Your task to perform on an android device: set the timer Image 0: 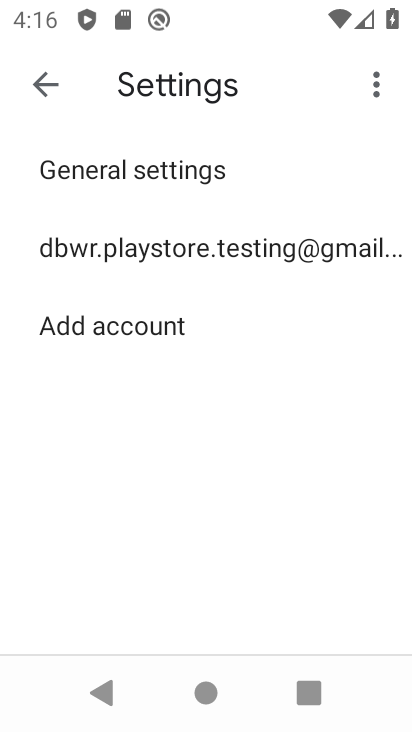
Step 0: press home button
Your task to perform on an android device: set the timer Image 1: 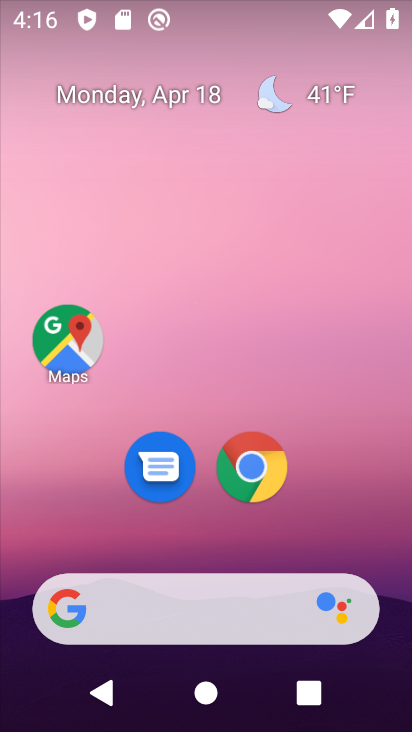
Step 1: drag from (218, 547) to (231, 209)
Your task to perform on an android device: set the timer Image 2: 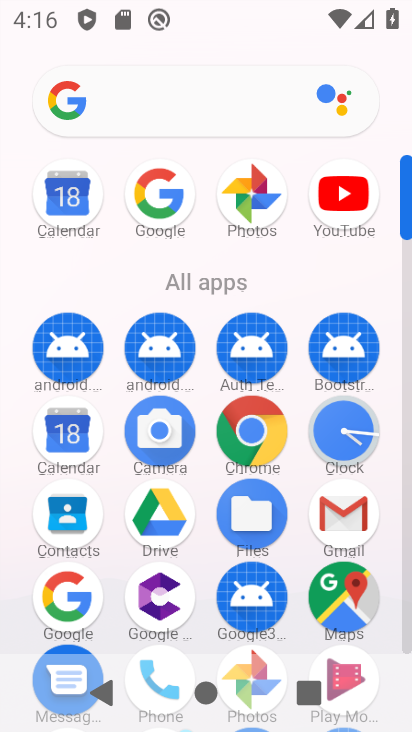
Step 2: click (327, 440)
Your task to perform on an android device: set the timer Image 3: 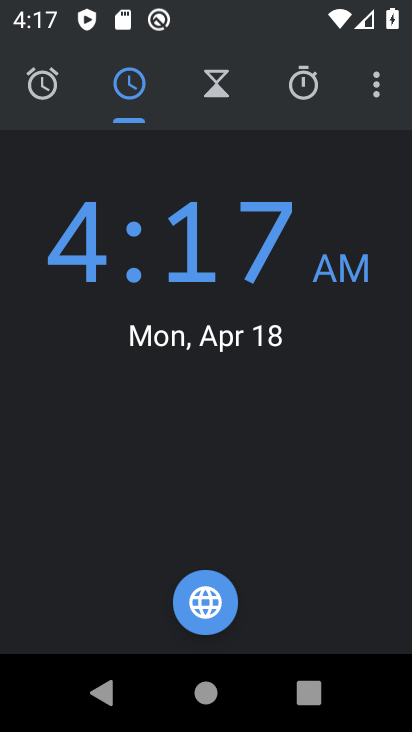
Step 3: click (215, 93)
Your task to perform on an android device: set the timer Image 4: 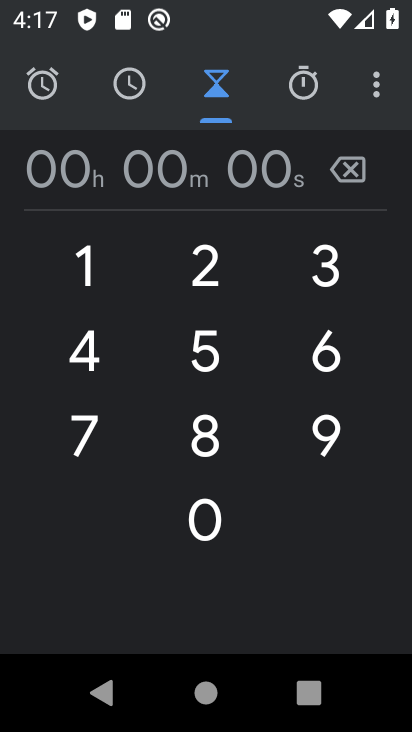
Step 4: click (263, 181)
Your task to perform on an android device: set the timer Image 5: 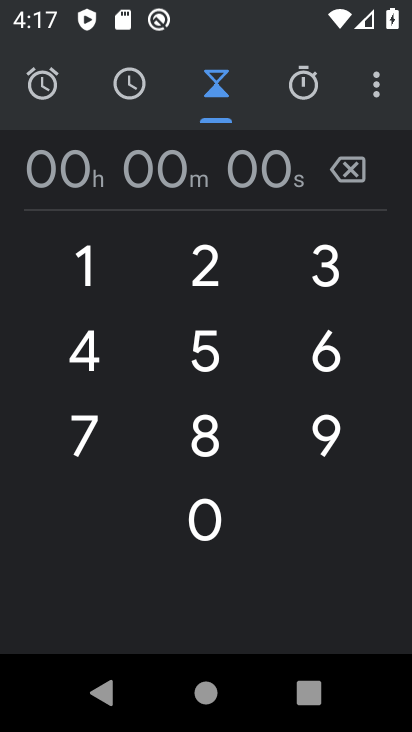
Step 5: type "55"
Your task to perform on an android device: set the timer Image 6: 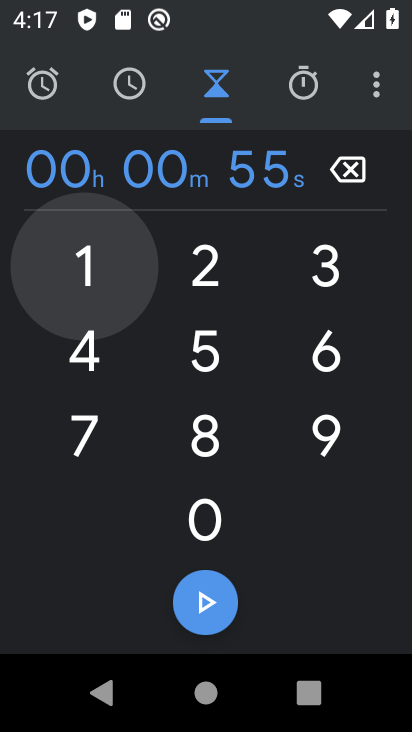
Step 6: click (207, 598)
Your task to perform on an android device: set the timer Image 7: 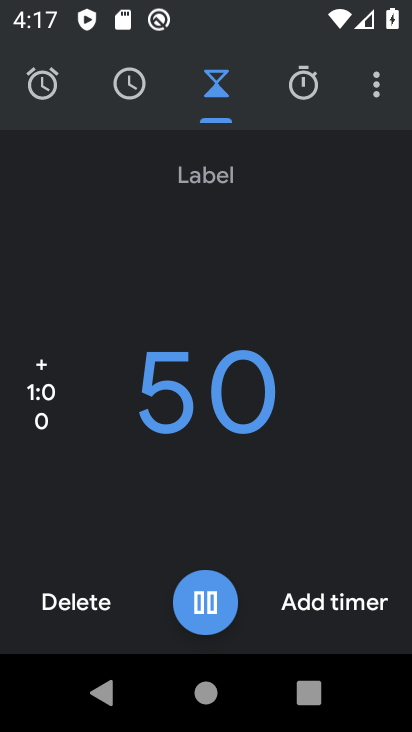
Step 7: task complete